Your task to perform on an android device: check out phone information Image 0: 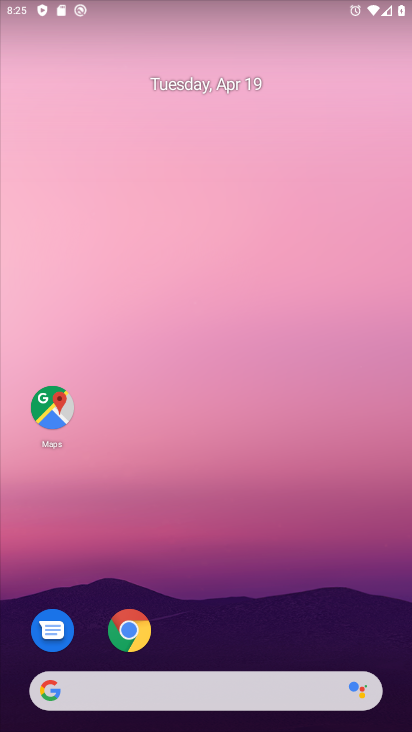
Step 0: drag from (279, 697) to (308, 47)
Your task to perform on an android device: check out phone information Image 1: 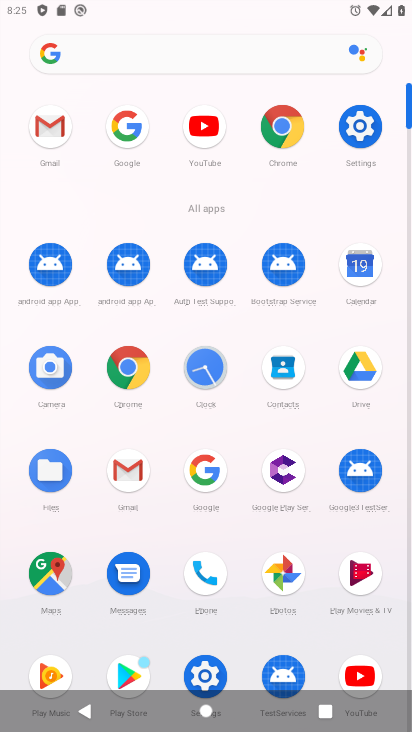
Step 1: click (361, 131)
Your task to perform on an android device: check out phone information Image 2: 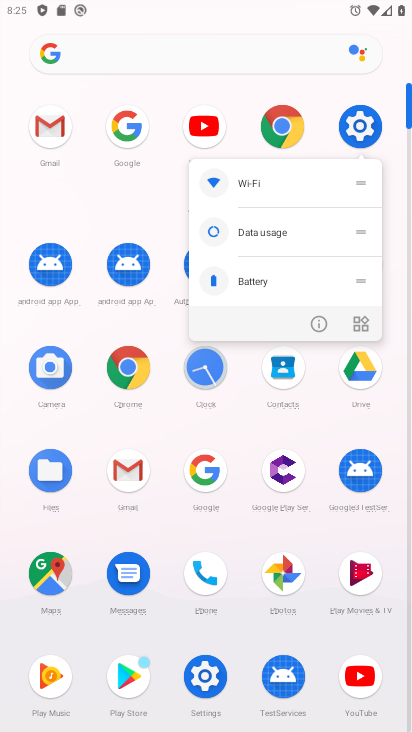
Step 2: click (373, 129)
Your task to perform on an android device: check out phone information Image 3: 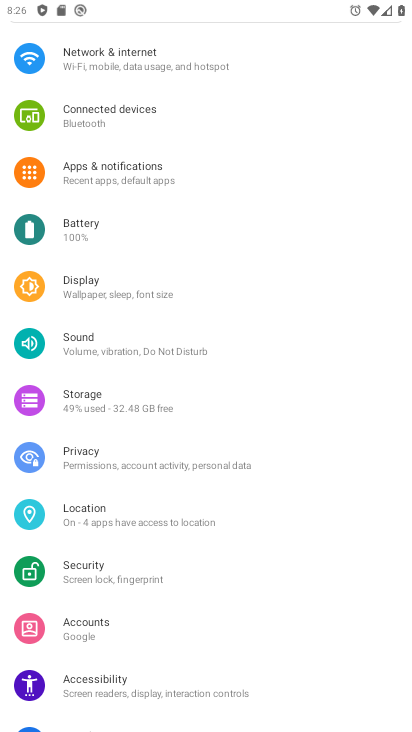
Step 3: drag from (256, 597) to (260, 217)
Your task to perform on an android device: check out phone information Image 4: 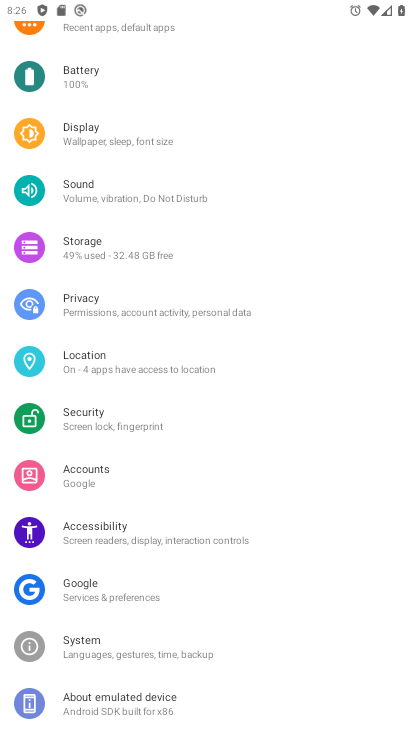
Step 4: drag from (193, 550) to (235, 208)
Your task to perform on an android device: check out phone information Image 5: 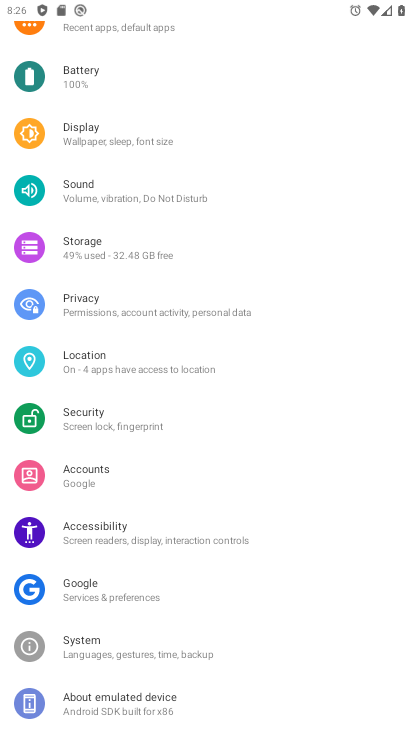
Step 5: click (210, 698)
Your task to perform on an android device: check out phone information Image 6: 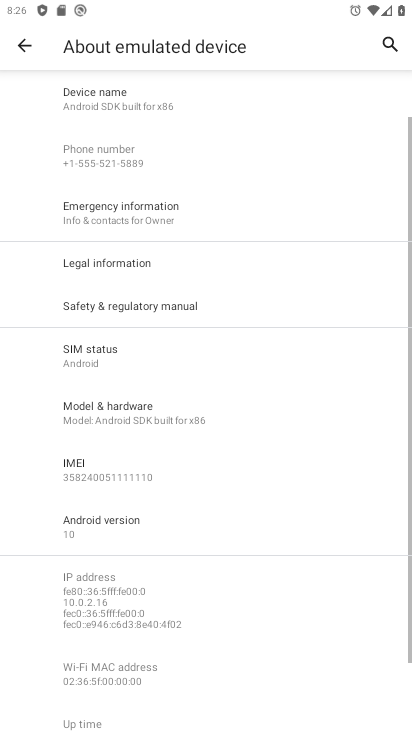
Step 6: task complete